Your task to perform on an android device: turn on the 12-hour format for clock Image 0: 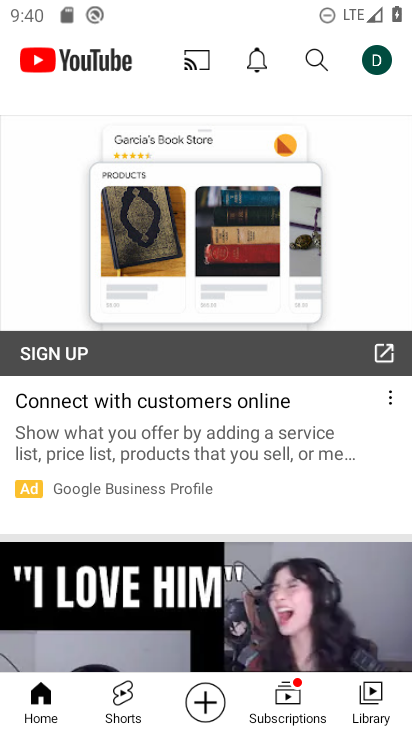
Step 0: press home button
Your task to perform on an android device: turn on the 12-hour format for clock Image 1: 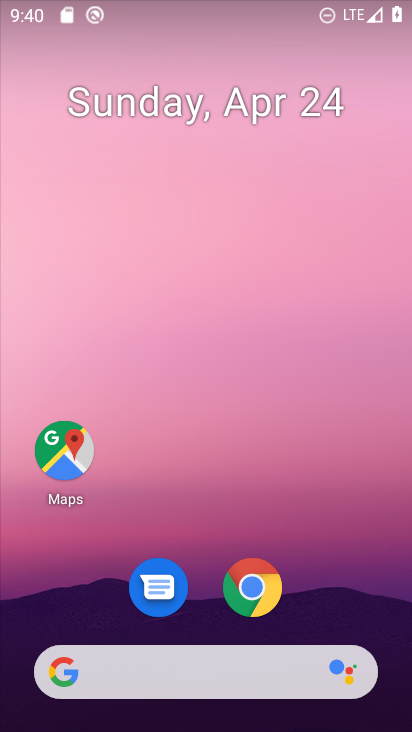
Step 1: drag from (367, 580) to (364, 166)
Your task to perform on an android device: turn on the 12-hour format for clock Image 2: 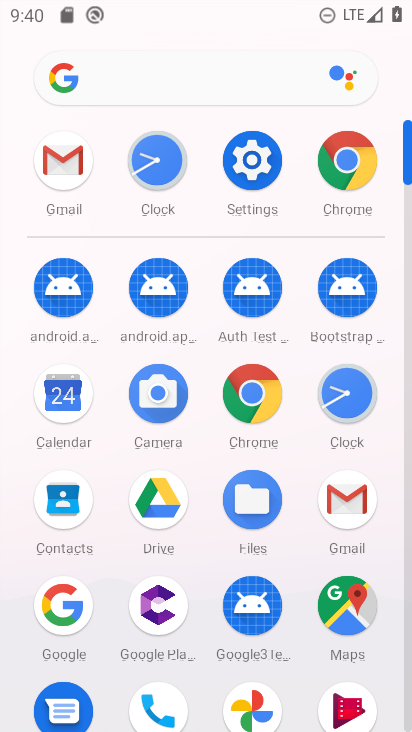
Step 2: click (341, 394)
Your task to perform on an android device: turn on the 12-hour format for clock Image 3: 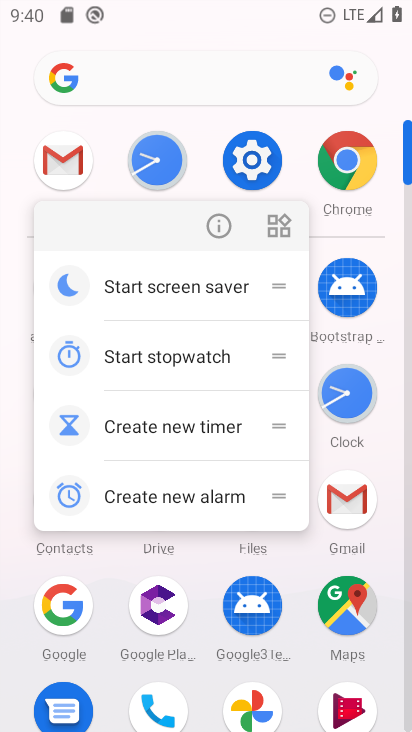
Step 3: click (347, 407)
Your task to perform on an android device: turn on the 12-hour format for clock Image 4: 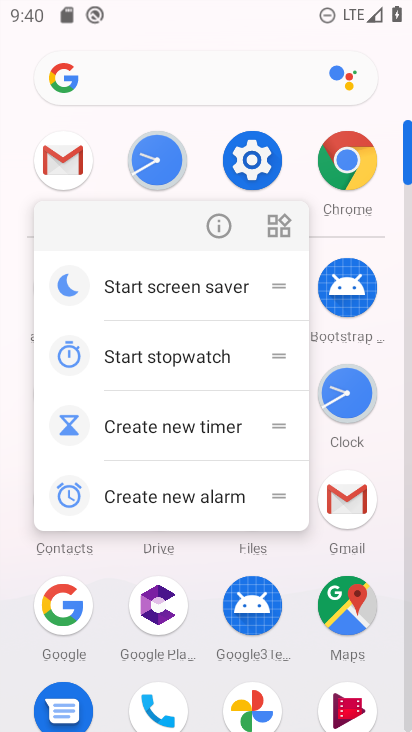
Step 4: click (355, 395)
Your task to perform on an android device: turn on the 12-hour format for clock Image 5: 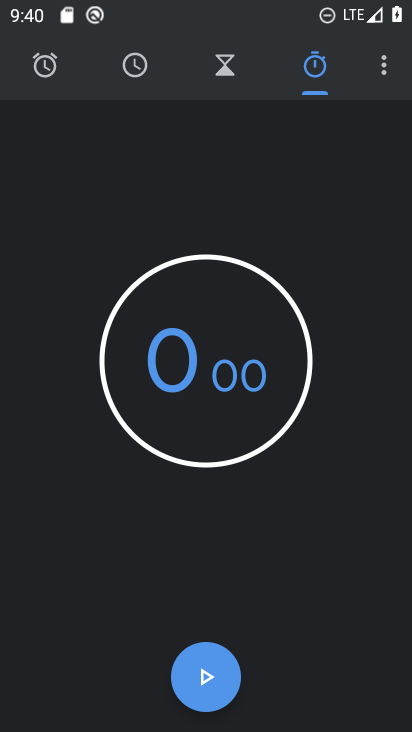
Step 5: click (387, 70)
Your task to perform on an android device: turn on the 12-hour format for clock Image 6: 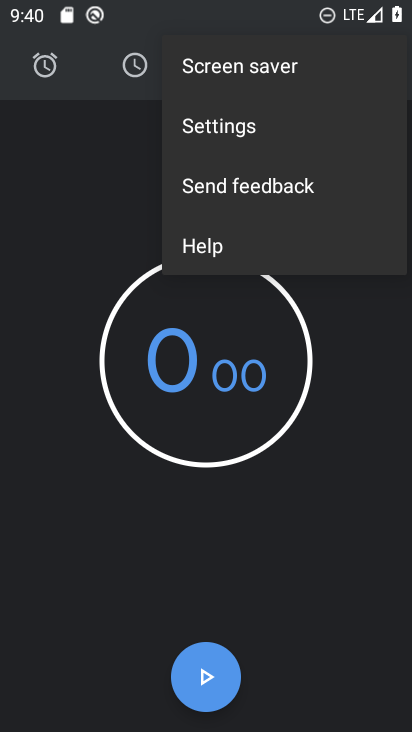
Step 6: click (277, 130)
Your task to perform on an android device: turn on the 12-hour format for clock Image 7: 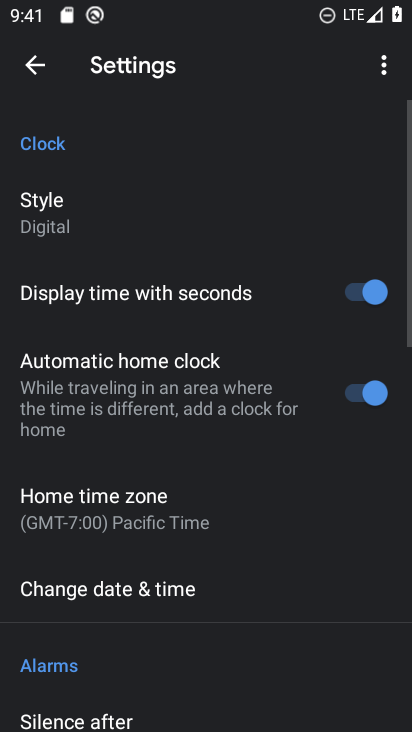
Step 7: drag from (213, 703) to (279, 256)
Your task to perform on an android device: turn on the 12-hour format for clock Image 8: 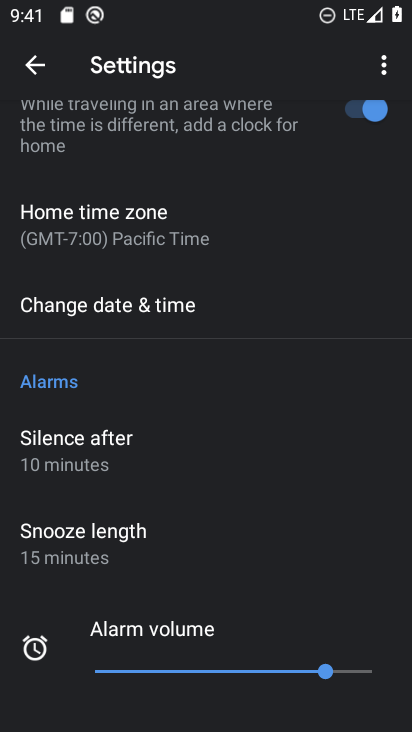
Step 8: drag from (248, 544) to (283, 211)
Your task to perform on an android device: turn on the 12-hour format for clock Image 9: 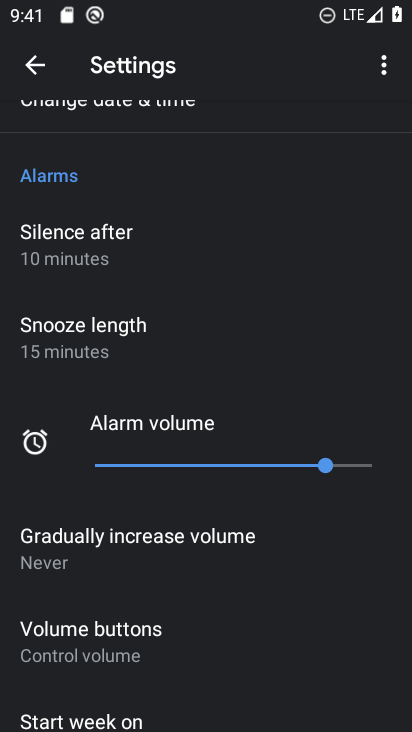
Step 9: click (267, 316)
Your task to perform on an android device: turn on the 12-hour format for clock Image 10: 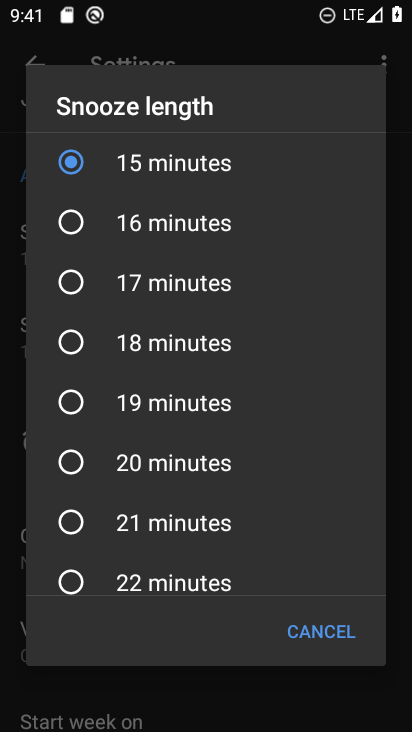
Step 10: click (329, 640)
Your task to perform on an android device: turn on the 12-hour format for clock Image 11: 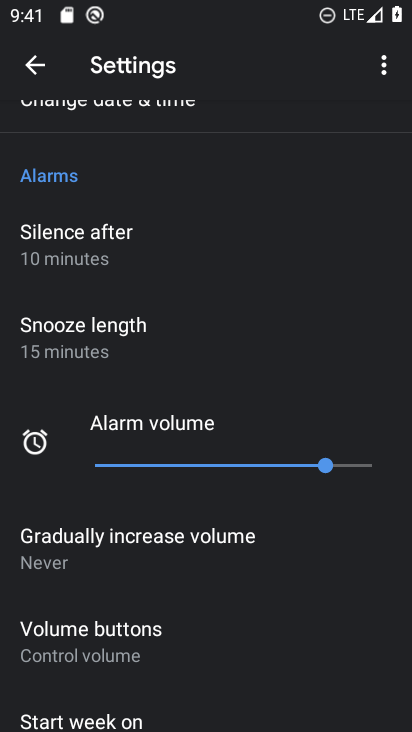
Step 11: drag from (330, 218) to (326, 635)
Your task to perform on an android device: turn on the 12-hour format for clock Image 12: 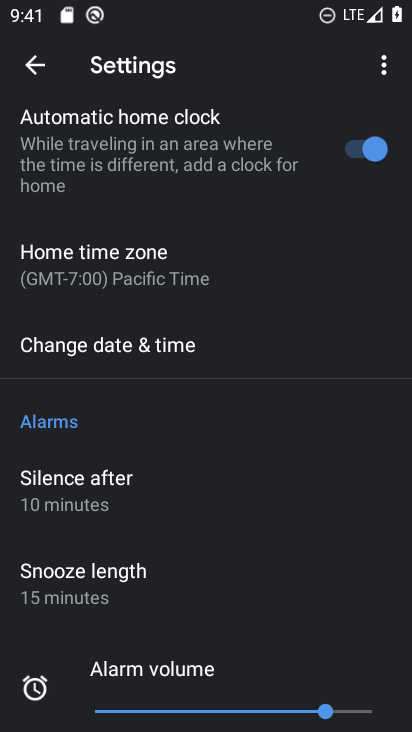
Step 12: click (213, 346)
Your task to perform on an android device: turn on the 12-hour format for clock Image 13: 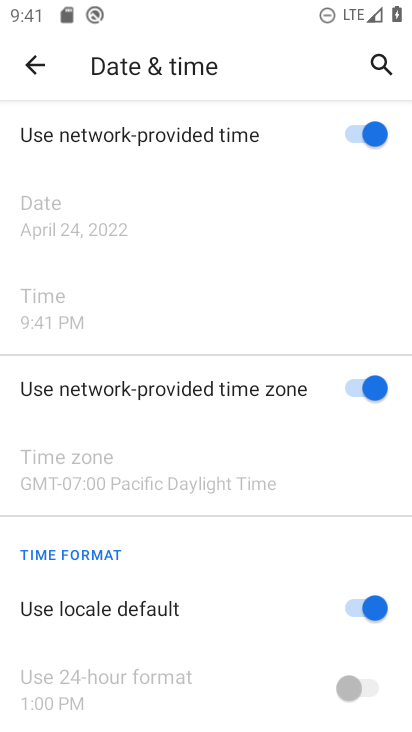
Step 13: task complete